Your task to perform on an android device: turn off airplane mode Image 0: 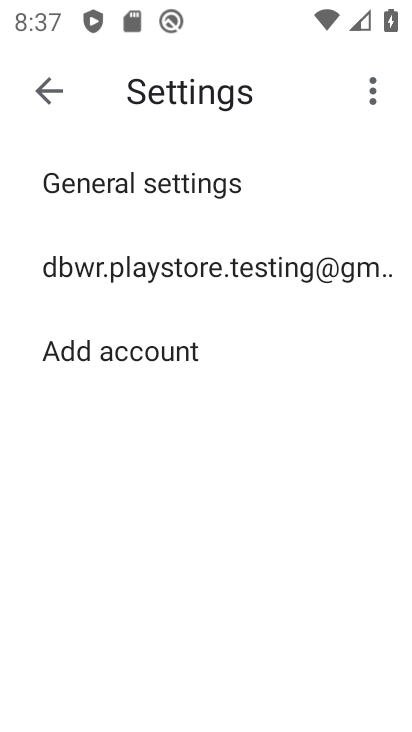
Step 0: press home button
Your task to perform on an android device: turn off airplane mode Image 1: 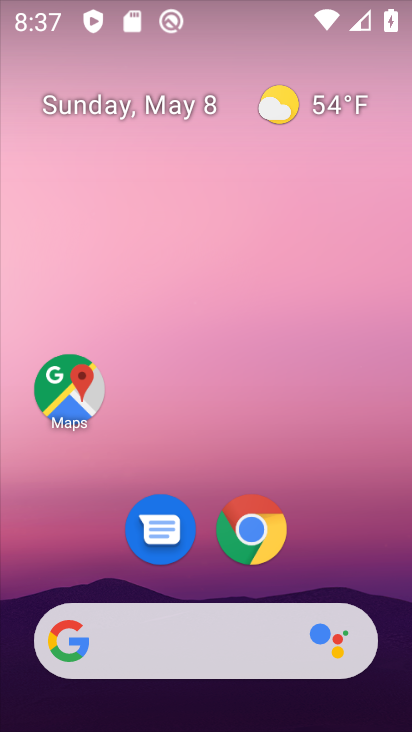
Step 1: drag from (373, 572) to (366, 98)
Your task to perform on an android device: turn off airplane mode Image 2: 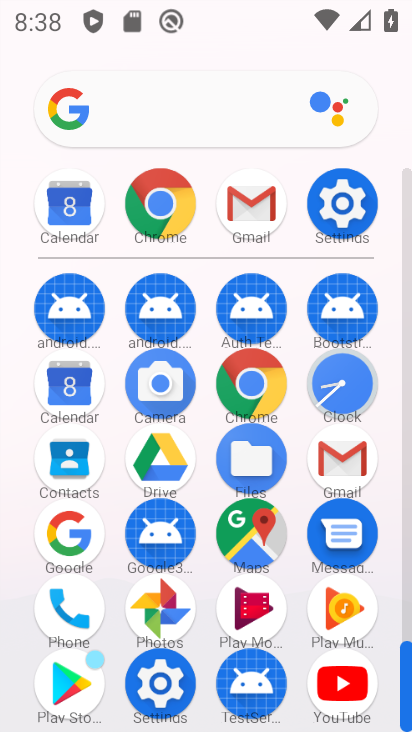
Step 2: click (353, 195)
Your task to perform on an android device: turn off airplane mode Image 3: 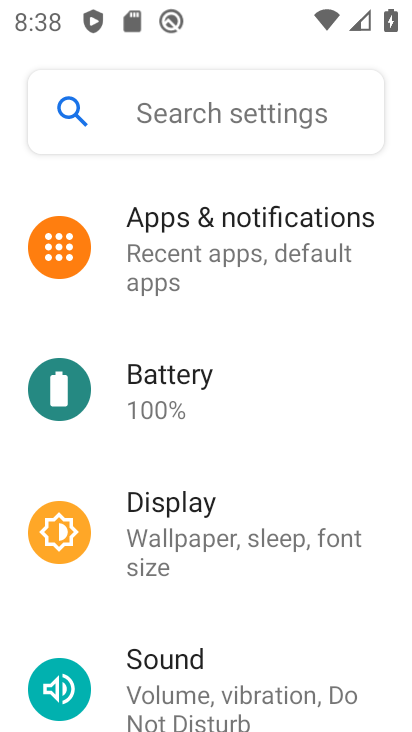
Step 3: drag from (285, 265) to (302, 678)
Your task to perform on an android device: turn off airplane mode Image 4: 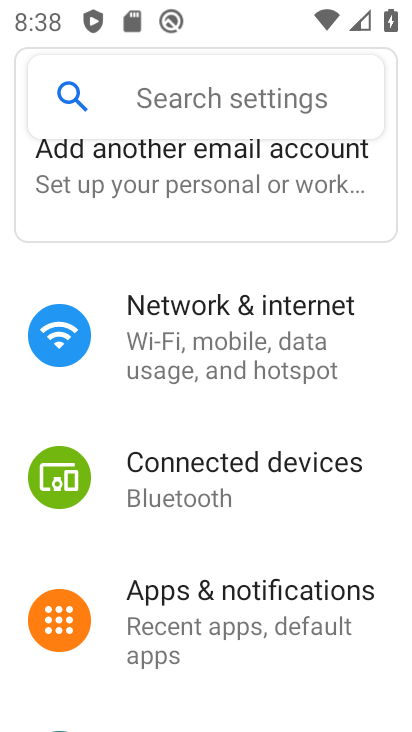
Step 4: click (261, 393)
Your task to perform on an android device: turn off airplane mode Image 5: 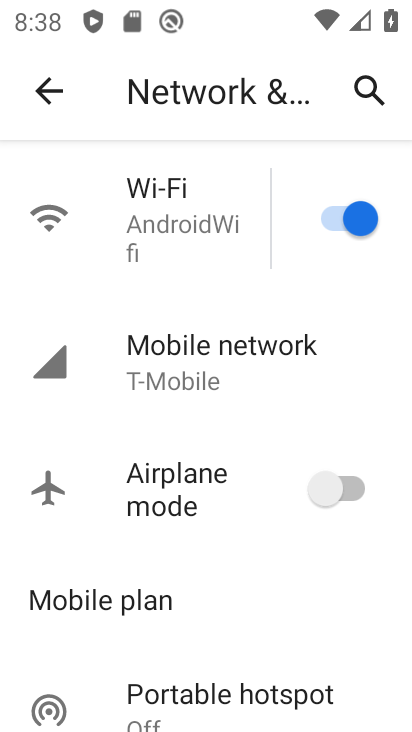
Step 5: task complete